Your task to perform on an android device: Google the capital of Panama Image 0: 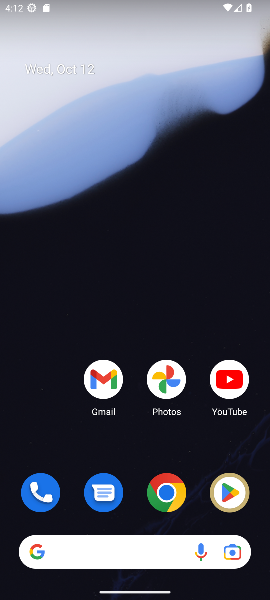
Step 0: click (122, 558)
Your task to perform on an android device: Google the capital of Panama Image 1: 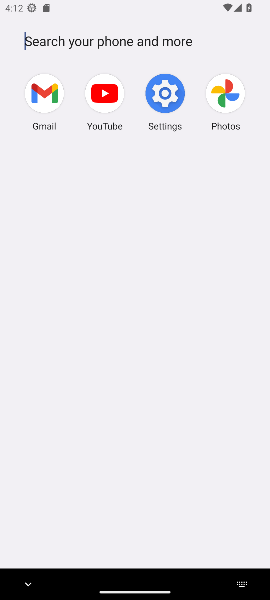
Step 1: type "capital of Panama"
Your task to perform on an android device: Google the capital of Panama Image 2: 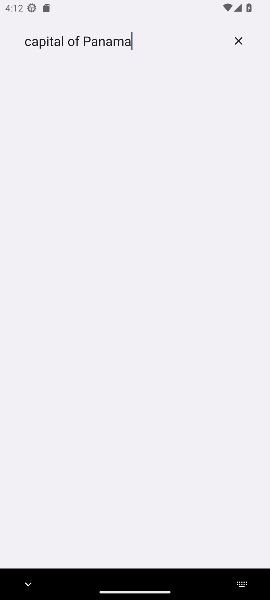
Step 2: click (123, 44)
Your task to perform on an android device: Google the capital of Panama Image 3: 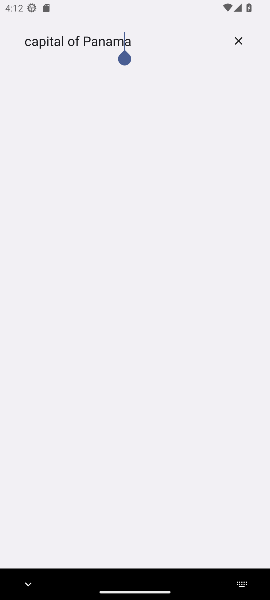
Step 3: click (122, 41)
Your task to perform on an android device: Google the capital of Panama Image 4: 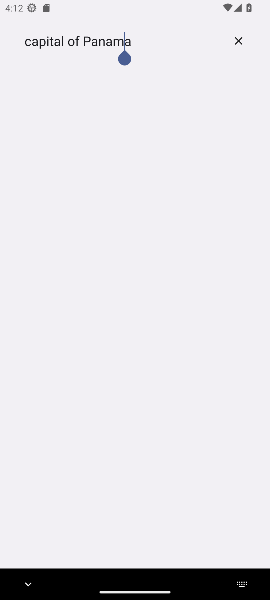
Step 4: click (142, 41)
Your task to perform on an android device: Google the capital of Panama Image 5: 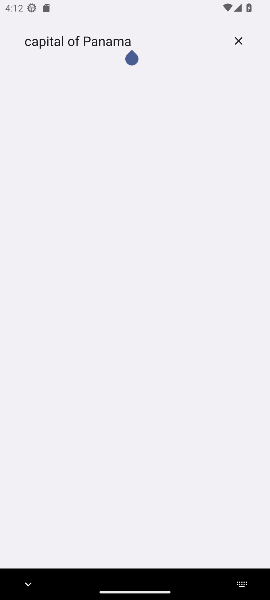
Step 5: click (240, 42)
Your task to perform on an android device: Google the capital of Panama Image 6: 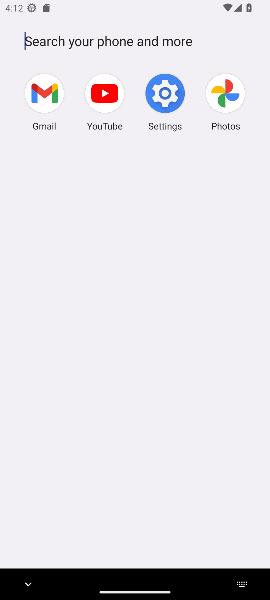
Step 6: press back button
Your task to perform on an android device: Google the capital of Panama Image 7: 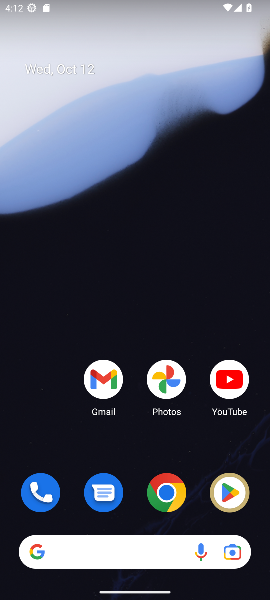
Step 7: click (93, 551)
Your task to perform on an android device: Google the capital of Panama Image 8: 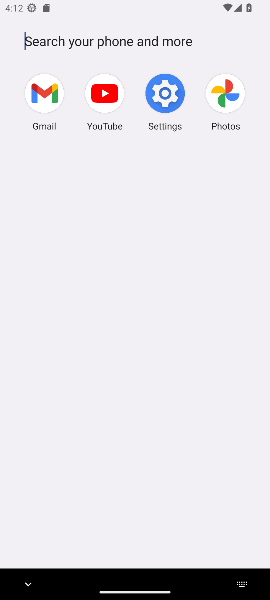
Step 8: click (71, 35)
Your task to perform on an android device: Google the capital of Panama Image 9: 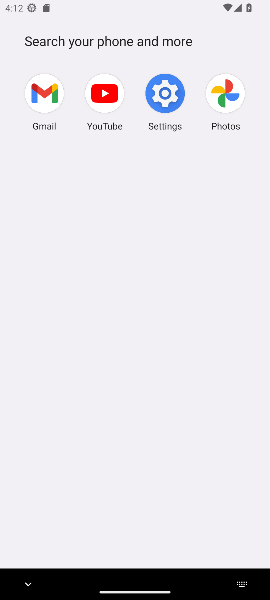
Step 9: type "capital of Panama"
Your task to perform on an android device: Google the capital of Panama Image 10: 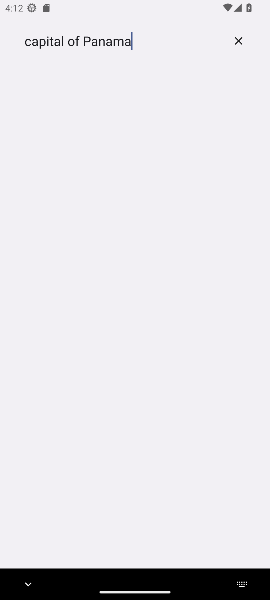
Step 10: click (139, 41)
Your task to perform on an android device: Google the capital of Panama Image 11: 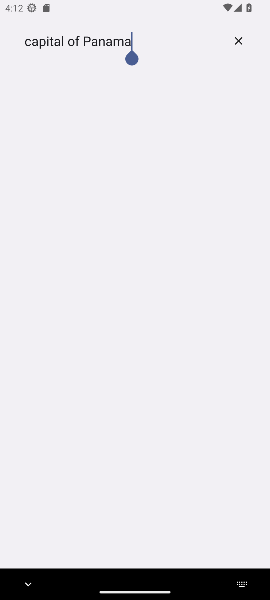
Step 11: click (236, 42)
Your task to perform on an android device: Google the capital of Panama Image 12: 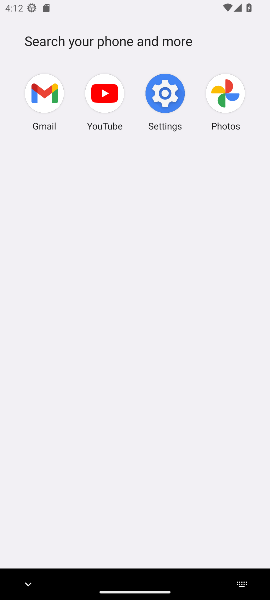
Step 12: press back button
Your task to perform on an android device: Google the capital of Panama Image 13: 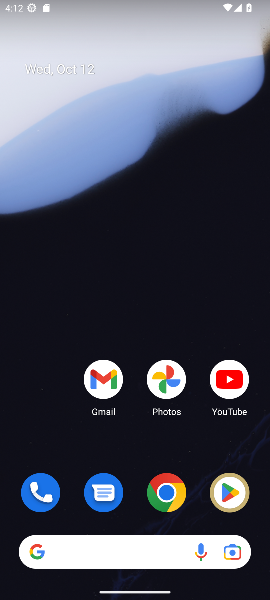
Step 13: drag from (139, 464) to (132, 72)
Your task to perform on an android device: Google the capital of Panama Image 14: 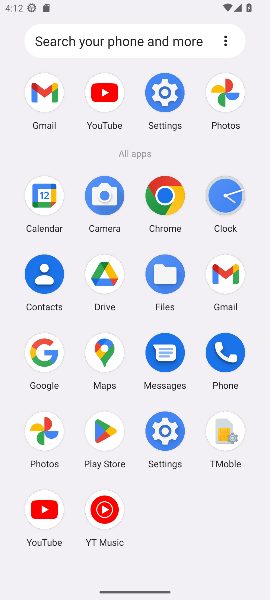
Step 14: click (38, 351)
Your task to perform on an android device: Google the capital of Panama Image 15: 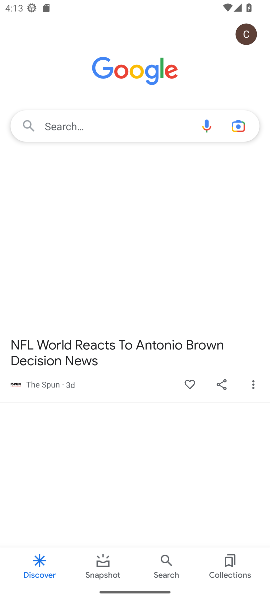
Step 15: click (79, 133)
Your task to perform on an android device: Google the capital of Panama Image 16: 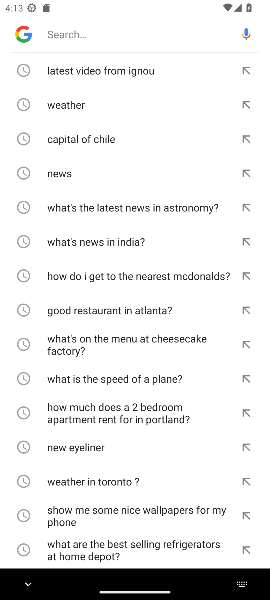
Step 16: type "capital of Panama"
Your task to perform on an android device: Google the capital of Panama Image 17: 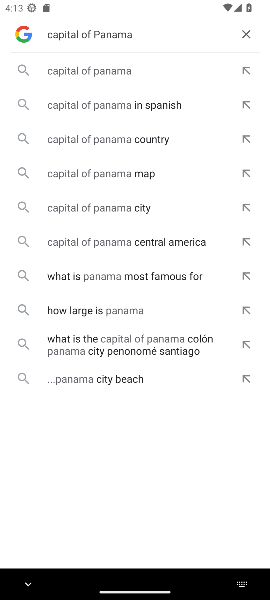
Step 17: click (107, 68)
Your task to perform on an android device: Google the capital of Panama Image 18: 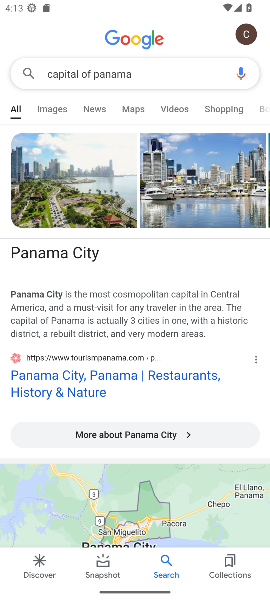
Step 18: click (51, 252)
Your task to perform on an android device: Google the capital of Panama Image 19: 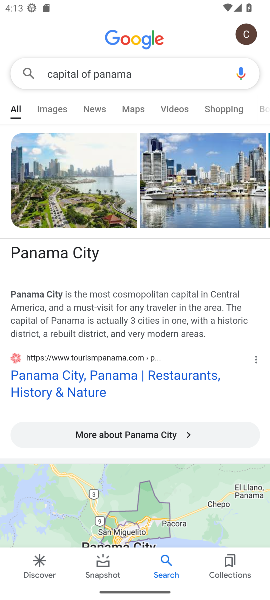
Step 19: click (55, 258)
Your task to perform on an android device: Google the capital of Panama Image 20: 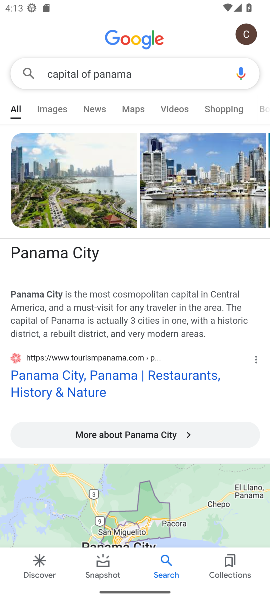
Step 20: click (60, 249)
Your task to perform on an android device: Google the capital of Panama Image 21: 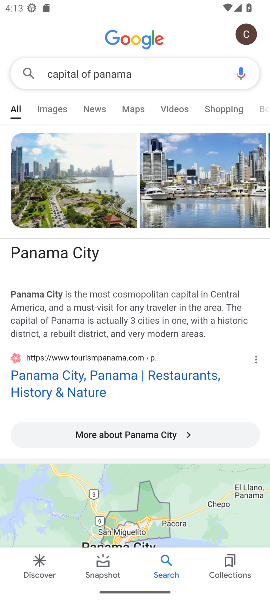
Step 21: click (23, 250)
Your task to perform on an android device: Google the capital of Panama Image 22: 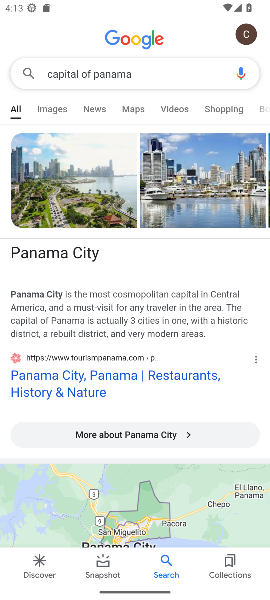
Step 22: press home button
Your task to perform on an android device: Google the capital of Panama Image 23: 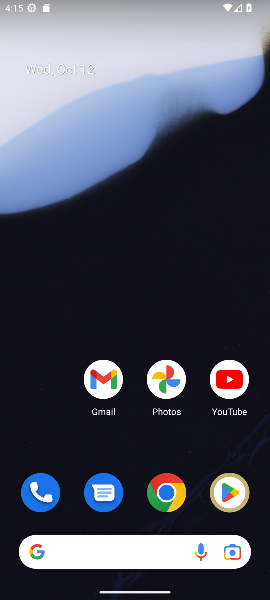
Step 23: drag from (188, 471) to (193, 68)
Your task to perform on an android device: Google the capital of Panama Image 24: 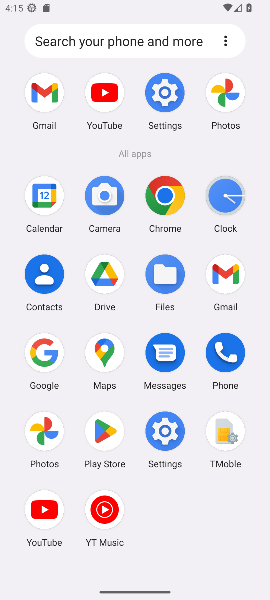
Step 24: click (37, 361)
Your task to perform on an android device: Google the capital of Panama Image 25: 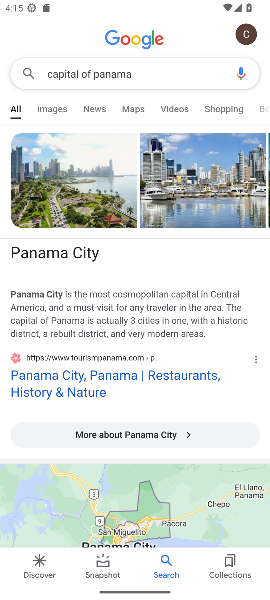
Step 25: click (39, 250)
Your task to perform on an android device: Google the capital of Panama Image 26: 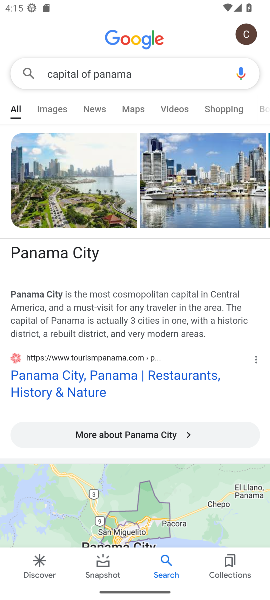
Step 26: task complete